Your task to perform on an android device: toggle translation in the chrome app Image 0: 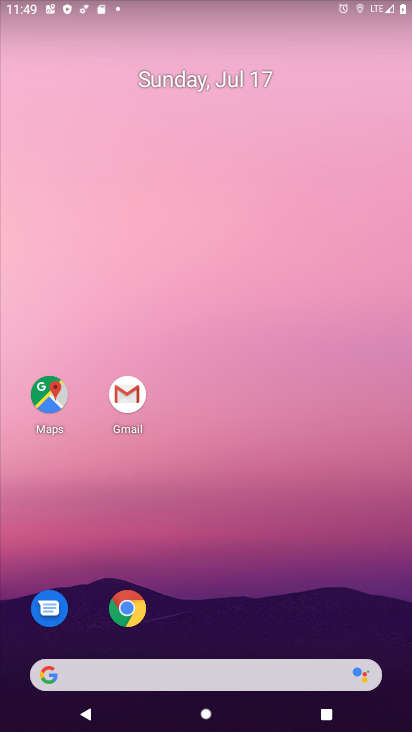
Step 0: drag from (213, 641) to (162, 72)
Your task to perform on an android device: toggle translation in the chrome app Image 1: 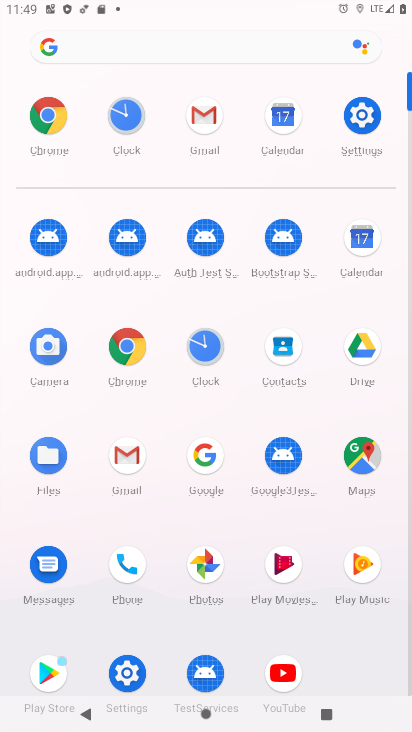
Step 1: click (119, 349)
Your task to perform on an android device: toggle translation in the chrome app Image 2: 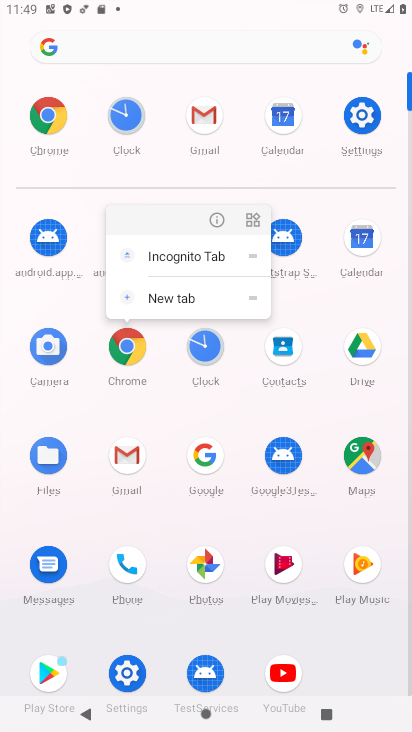
Step 2: click (118, 348)
Your task to perform on an android device: toggle translation in the chrome app Image 3: 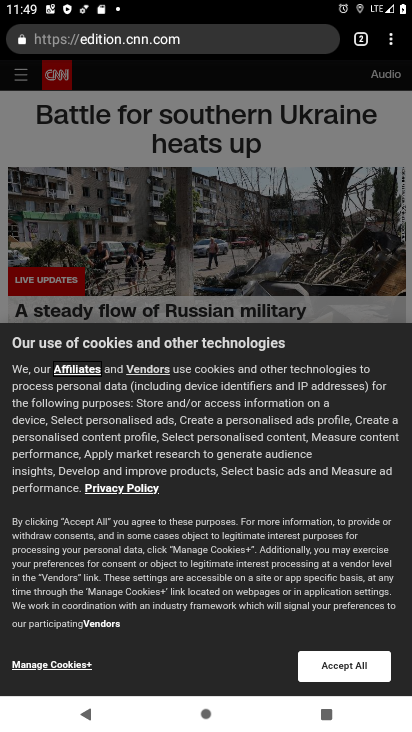
Step 3: drag from (389, 33) to (249, 436)
Your task to perform on an android device: toggle translation in the chrome app Image 4: 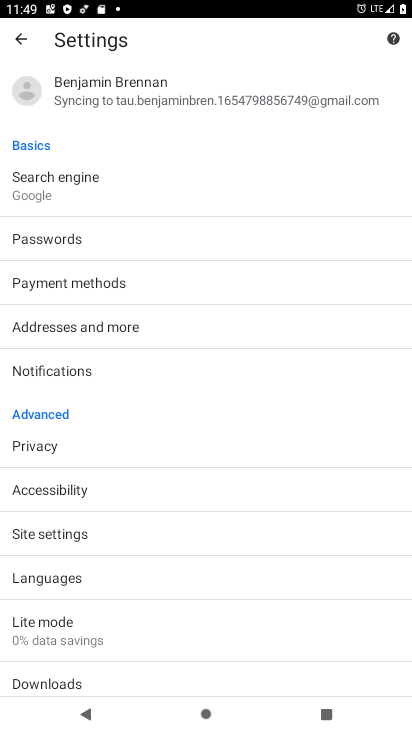
Step 4: click (84, 578)
Your task to perform on an android device: toggle translation in the chrome app Image 5: 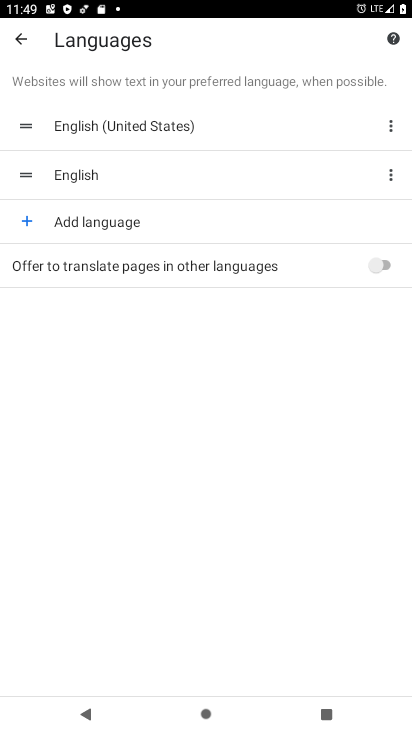
Step 5: click (382, 267)
Your task to perform on an android device: toggle translation in the chrome app Image 6: 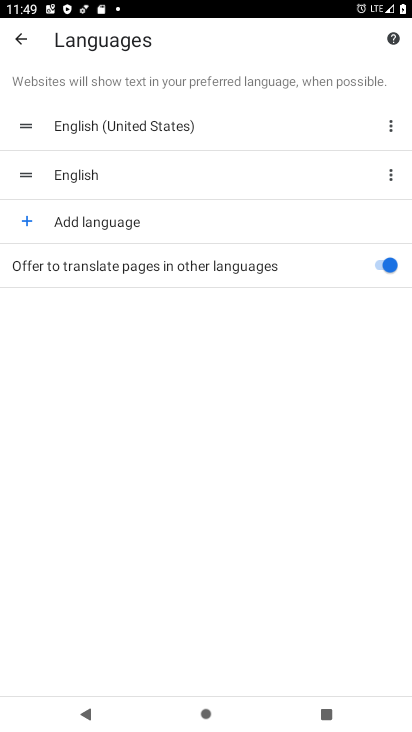
Step 6: task complete